Your task to perform on an android device: turn off picture-in-picture Image 0: 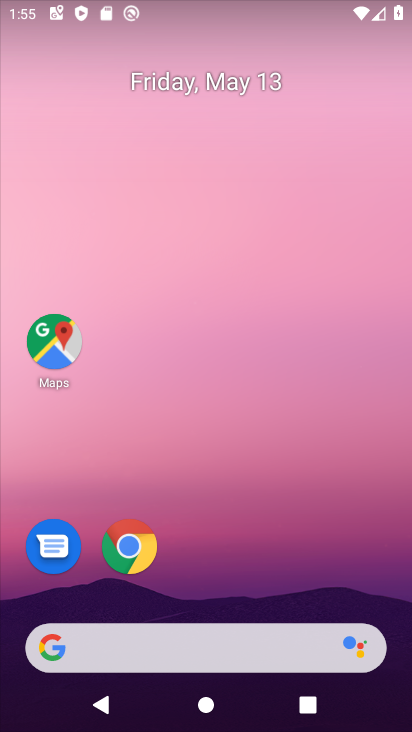
Step 0: click (140, 546)
Your task to perform on an android device: turn off picture-in-picture Image 1: 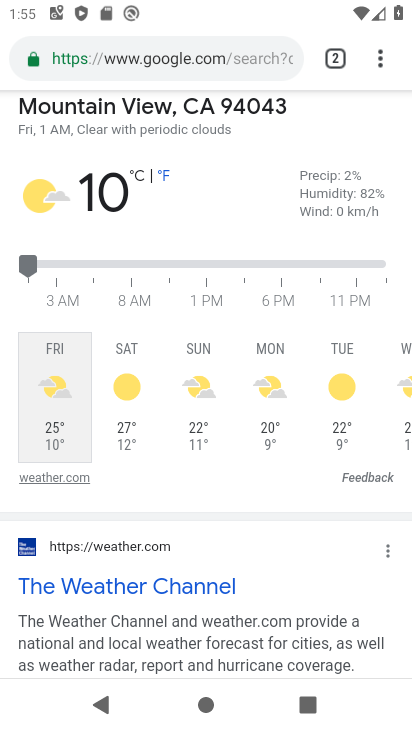
Step 1: press home button
Your task to perform on an android device: turn off picture-in-picture Image 2: 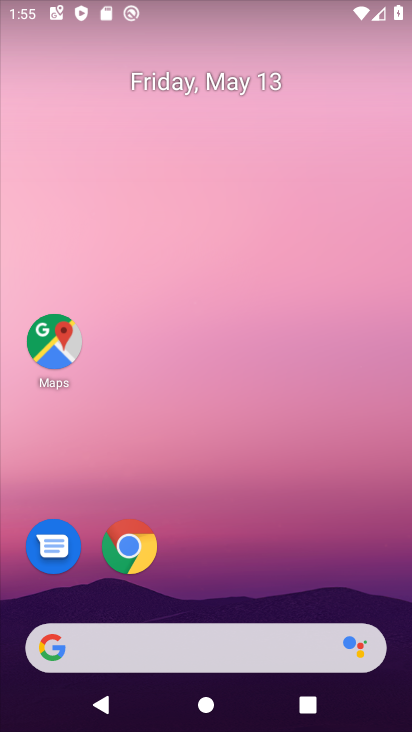
Step 2: click (139, 543)
Your task to perform on an android device: turn off picture-in-picture Image 3: 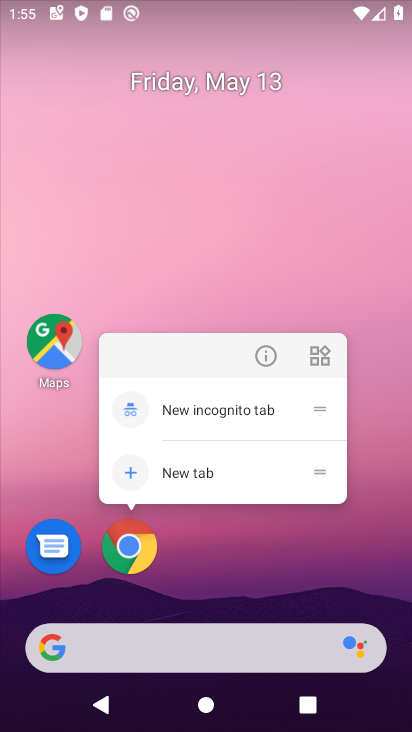
Step 3: click (268, 354)
Your task to perform on an android device: turn off picture-in-picture Image 4: 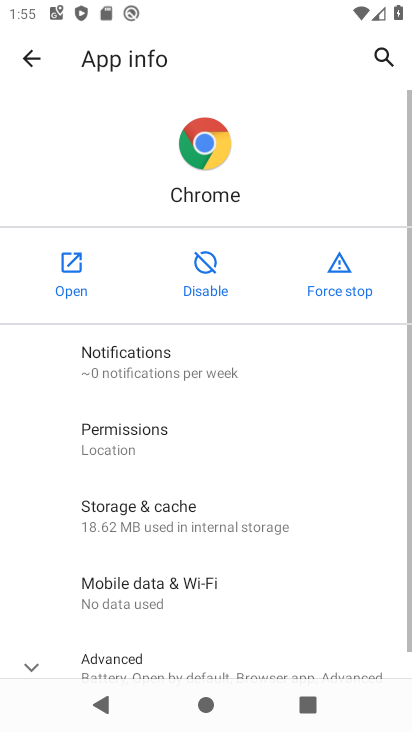
Step 4: drag from (295, 517) to (318, 87)
Your task to perform on an android device: turn off picture-in-picture Image 5: 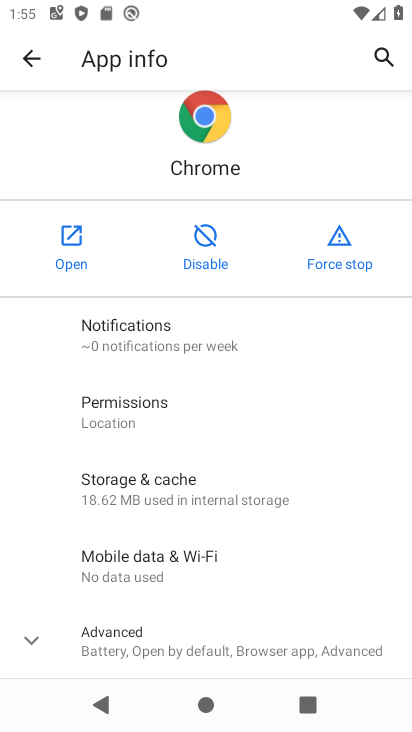
Step 5: drag from (277, 392) to (302, 160)
Your task to perform on an android device: turn off picture-in-picture Image 6: 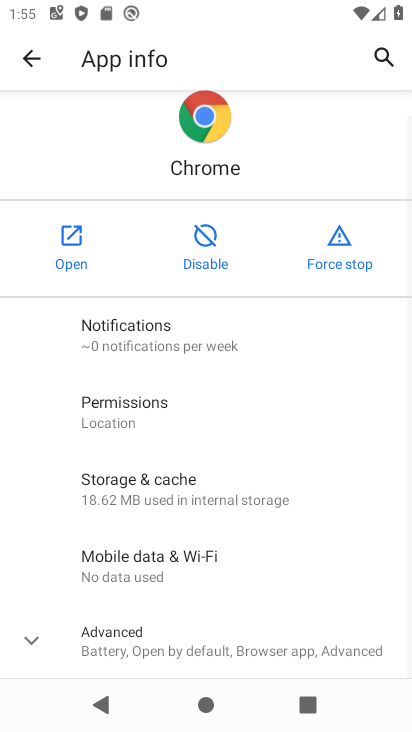
Step 6: click (122, 651)
Your task to perform on an android device: turn off picture-in-picture Image 7: 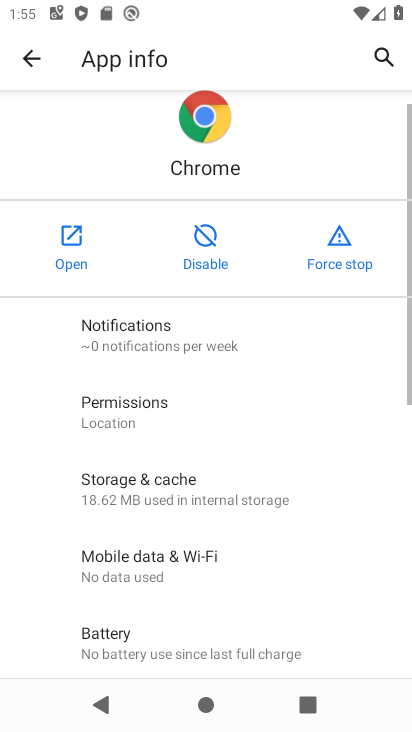
Step 7: drag from (315, 598) to (313, 250)
Your task to perform on an android device: turn off picture-in-picture Image 8: 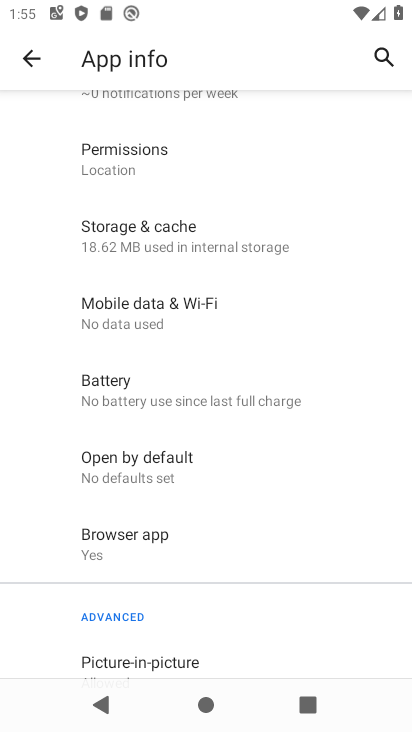
Step 8: drag from (236, 644) to (318, 310)
Your task to perform on an android device: turn off picture-in-picture Image 9: 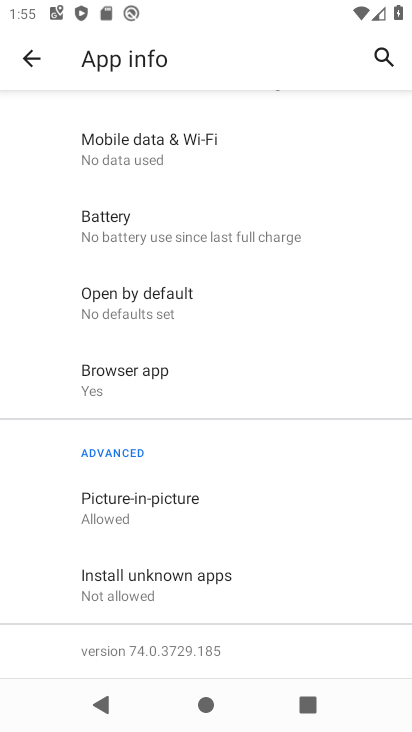
Step 9: click (138, 501)
Your task to perform on an android device: turn off picture-in-picture Image 10: 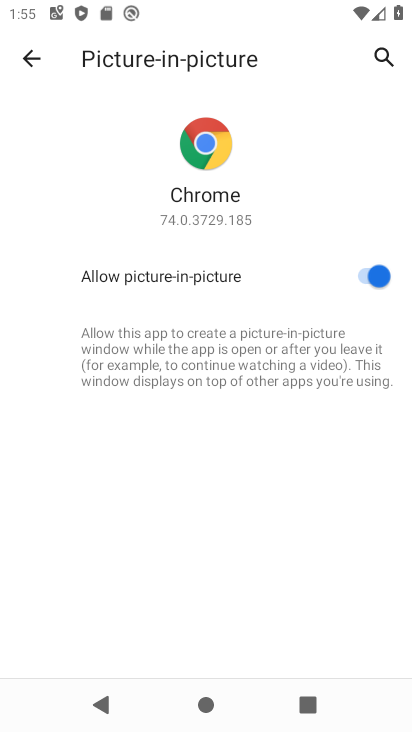
Step 10: click (380, 276)
Your task to perform on an android device: turn off picture-in-picture Image 11: 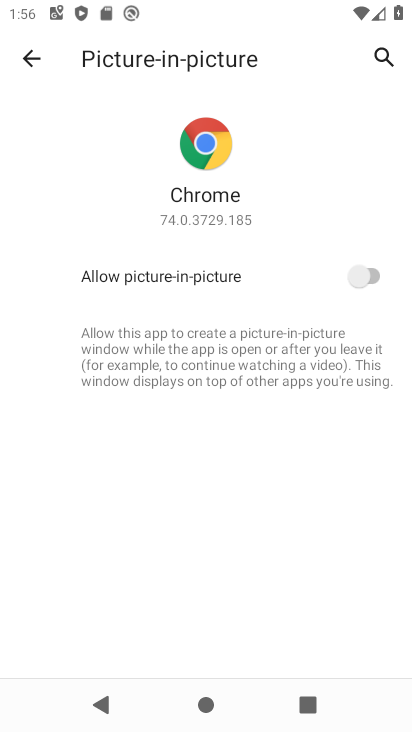
Step 11: task complete